Your task to perform on an android device: move a message to another label in the gmail app Image 0: 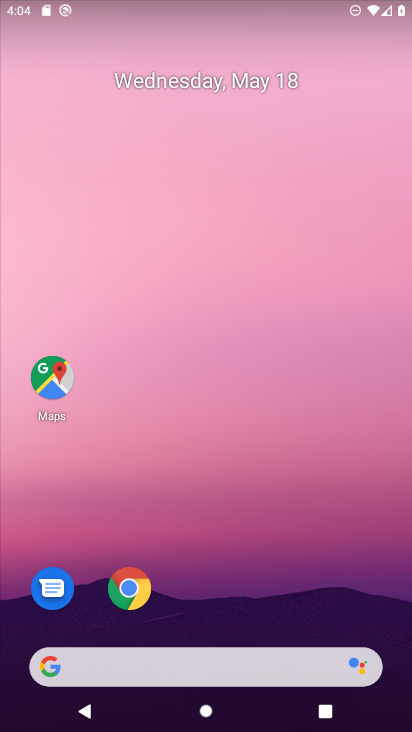
Step 0: drag from (301, 588) to (283, 169)
Your task to perform on an android device: move a message to another label in the gmail app Image 1: 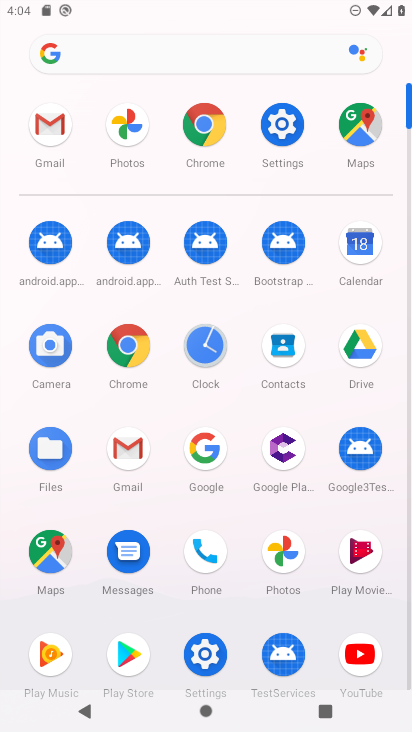
Step 1: click (61, 135)
Your task to perform on an android device: move a message to another label in the gmail app Image 2: 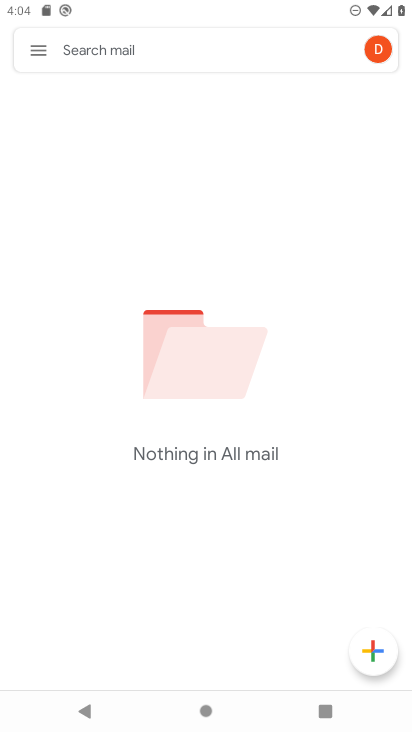
Step 2: task complete